Your task to perform on an android device: Open accessibility settings Image 0: 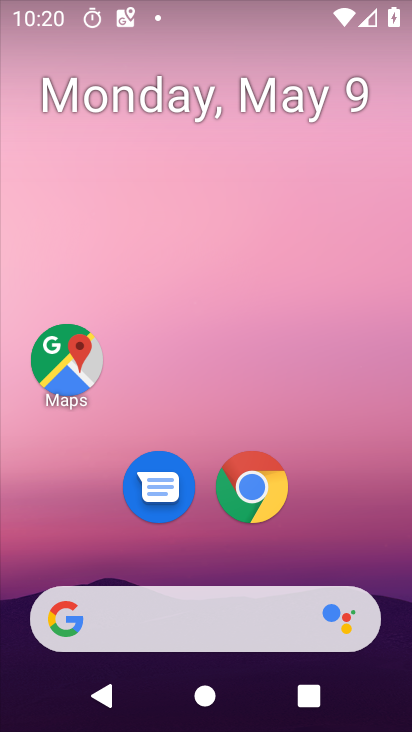
Step 0: drag from (332, 518) to (108, 101)
Your task to perform on an android device: Open accessibility settings Image 1: 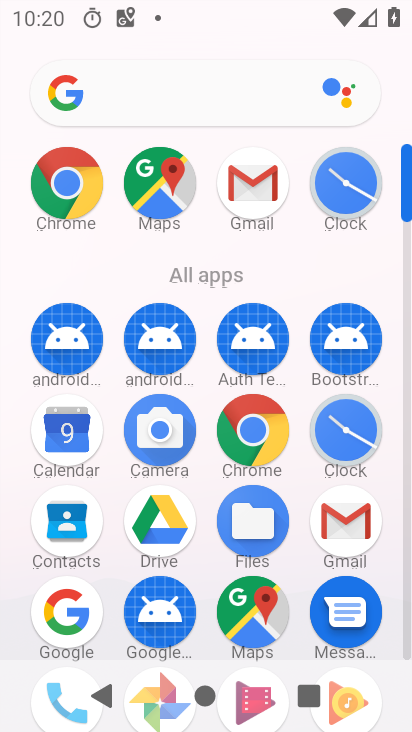
Step 1: drag from (205, 518) to (199, 331)
Your task to perform on an android device: Open accessibility settings Image 2: 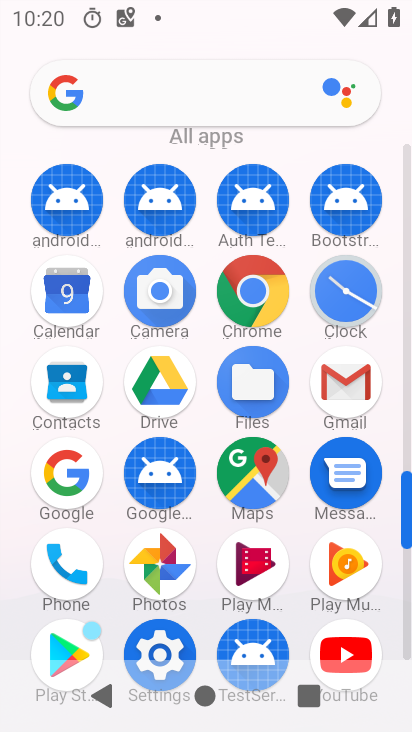
Step 2: click (165, 635)
Your task to perform on an android device: Open accessibility settings Image 3: 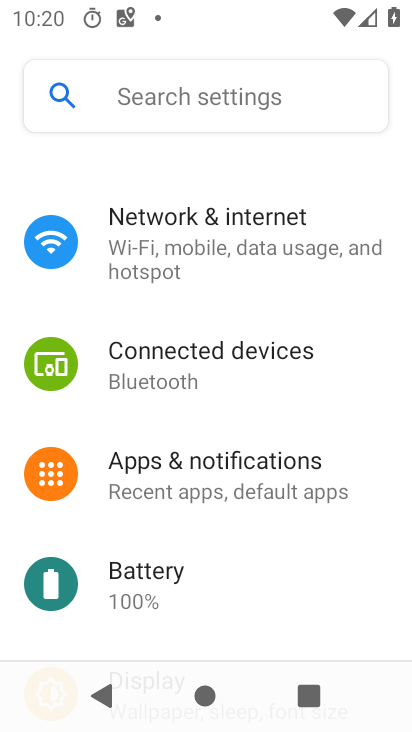
Step 3: drag from (165, 635) to (174, 237)
Your task to perform on an android device: Open accessibility settings Image 4: 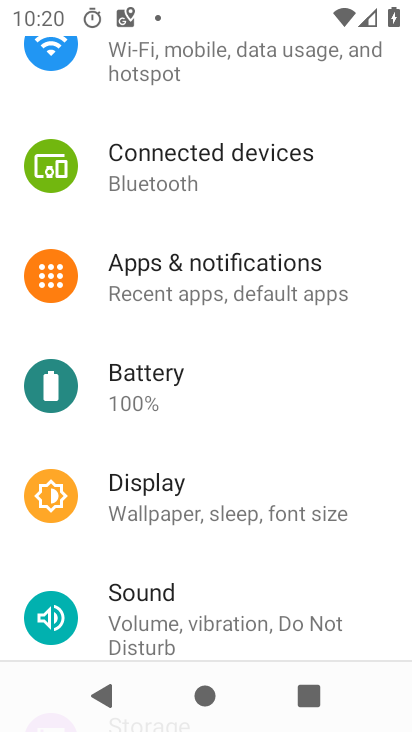
Step 4: drag from (244, 571) to (271, 159)
Your task to perform on an android device: Open accessibility settings Image 5: 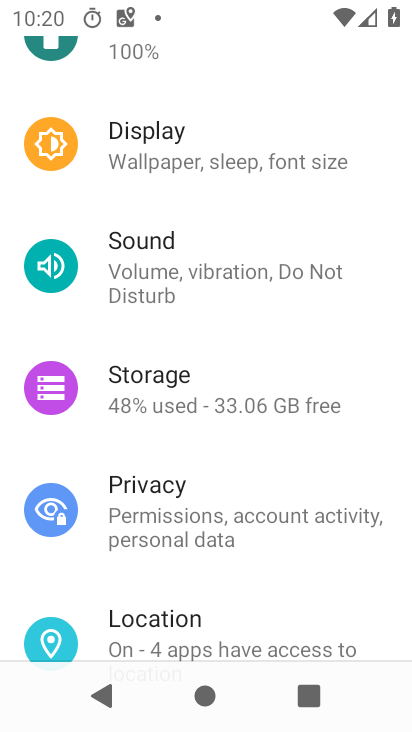
Step 5: drag from (213, 576) to (216, 220)
Your task to perform on an android device: Open accessibility settings Image 6: 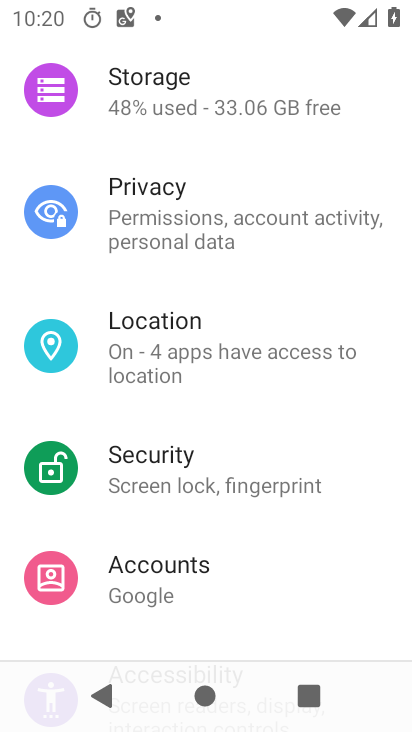
Step 6: drag from (244, 612) to (253, 349)
Your task to perform on an android device: Open accessibility settings Image 7: 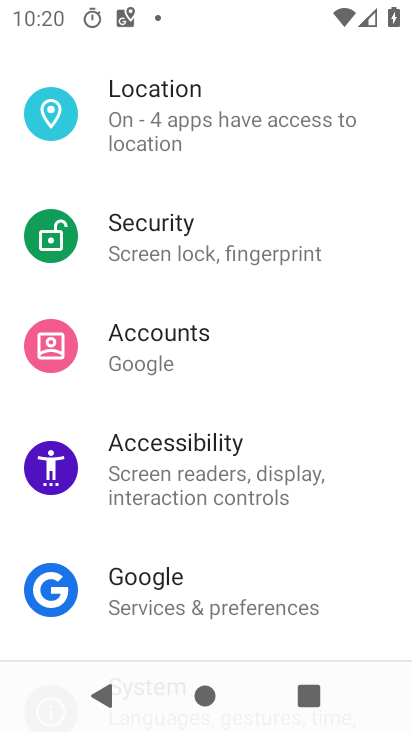
Step 7: click (167, 468)
Your task to perform on an android device: Open accessibility settings Image 8: 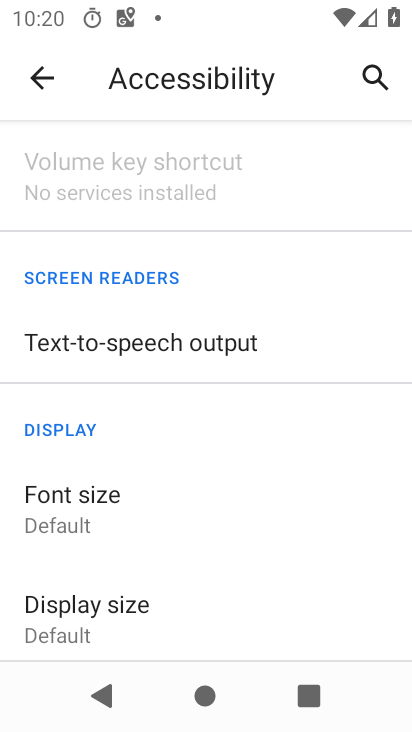
Step 8: task complete